Your task to perform on an android device: Open Wikipedia Image 0: 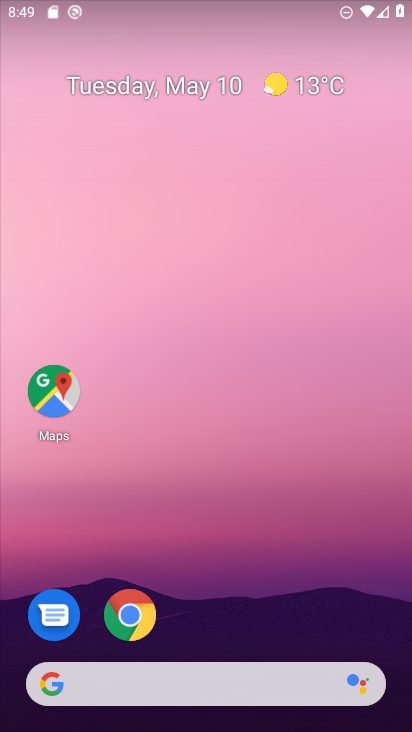
Step 0: click (135, 607)
Your task to perform on an android device: Open Wikipedia Image 1: 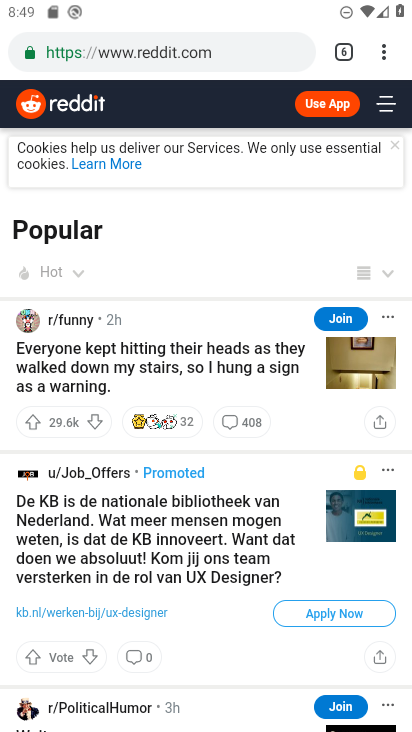
Step 1: click (381, 46)
Your task to perform on an android device: Open Wikipedia Image 2: 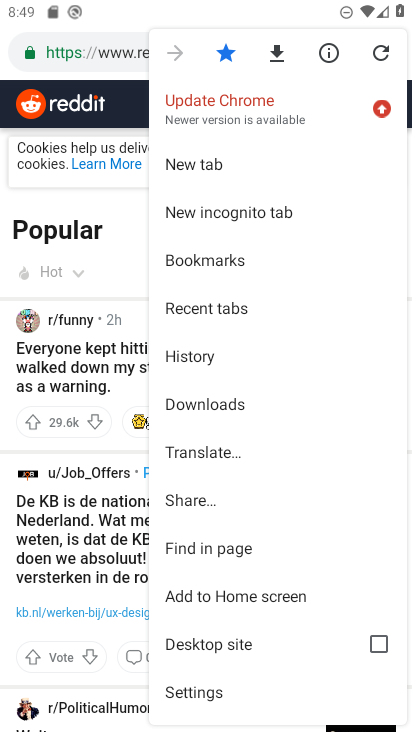
Step 2: click (200, 165)
Your task to perform on an android device: Open Wikipedia Image 3: 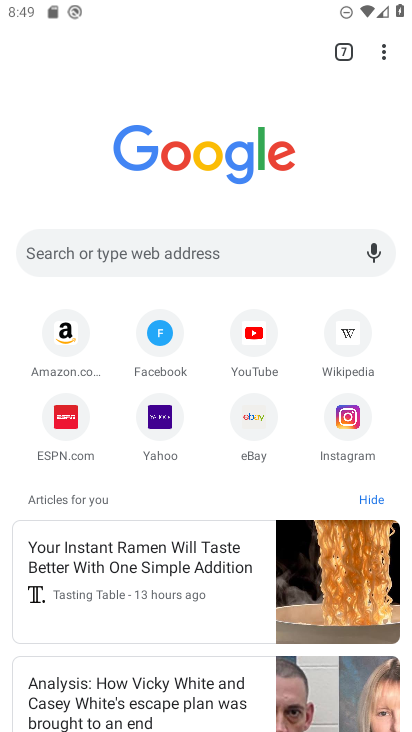
Step 3: click (346, 336)
Your task to perform on an android device: Open Wikipedia Image 4: 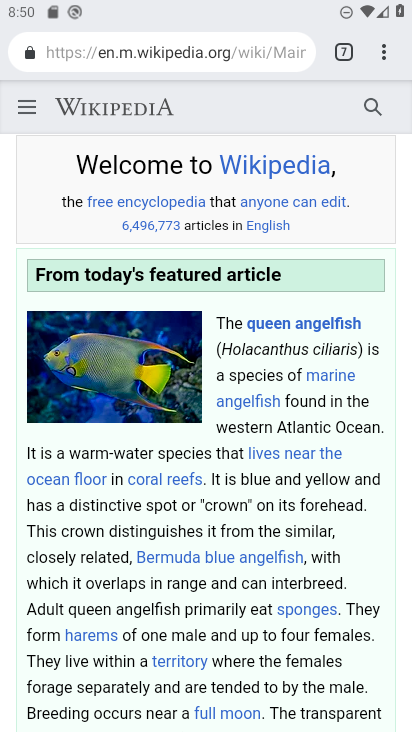
Step 4: task complete